Your task to perform on an android device: change alarm snooze length Image 0: 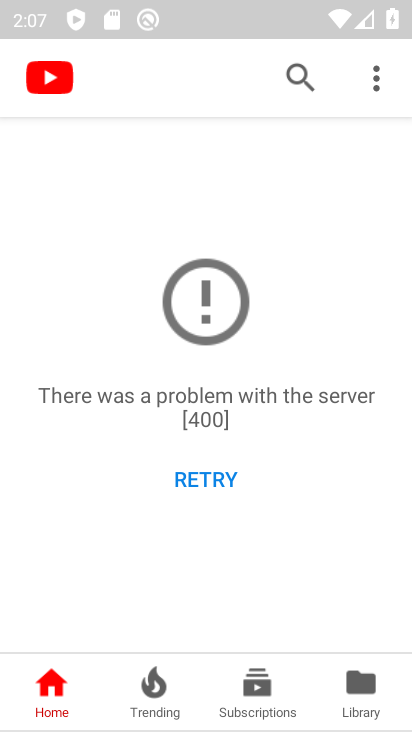
Step 0: press home button
Your task to perform on an android device: change alarm snooze length Image 1: 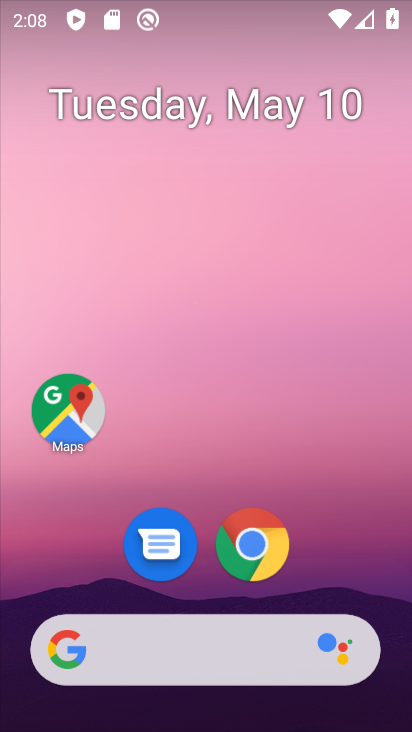
Step 1: drag from (249, 720) to (272, 202)
Your task to perform on an android device: change alarm snooze length Image 2: 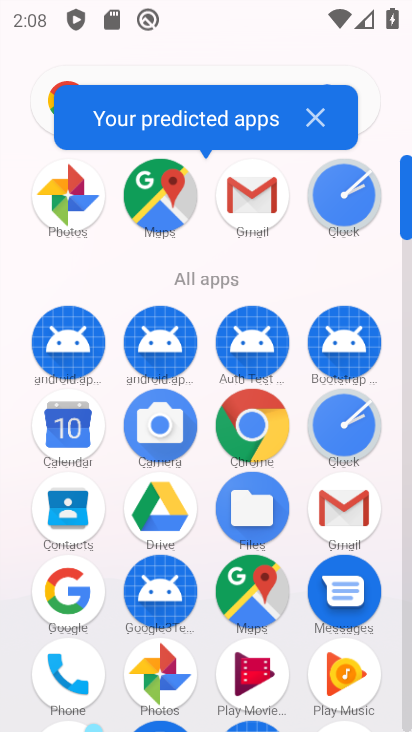
Step 2: click (338, 423)
Your task to perform on an android device: change alarm snooze length Image 3: 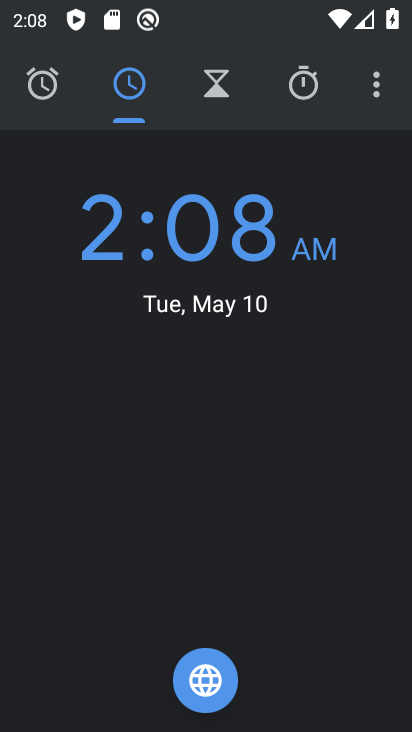
Step 3: click (378, 90)
Your task to perform on an android device: change alarm snooze length Image 4: 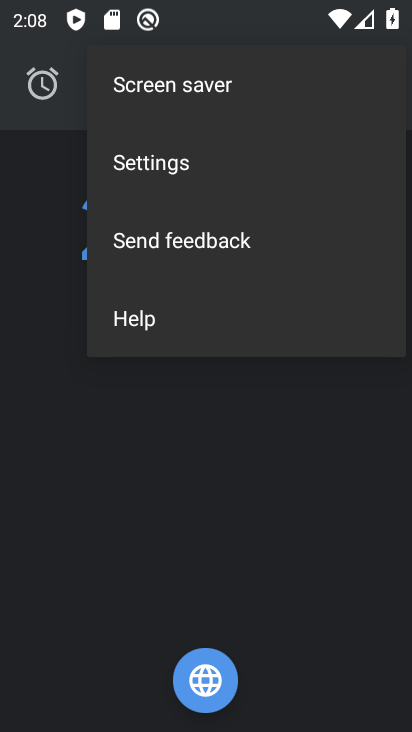
Step 4: click (161, 161)
Your task to perform on an android device: change alarm snooze length Image 5: 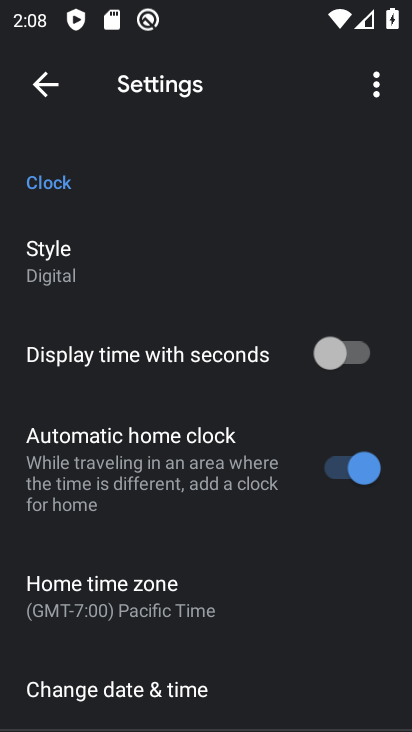
Step 5: drag from (158, 566) to (163, 272)
Your task to perform on an android device: change alarm snooze length Image 6: 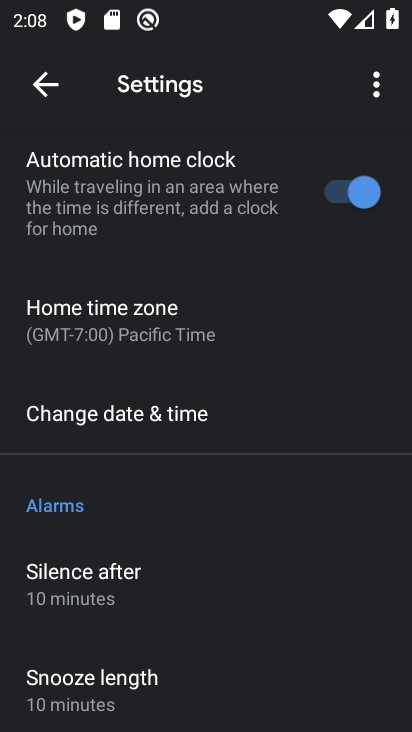
Step 6: drag from (172, 639) to (172, 394)
Your task to perform on an android device: change alarm snooze length Image 7: 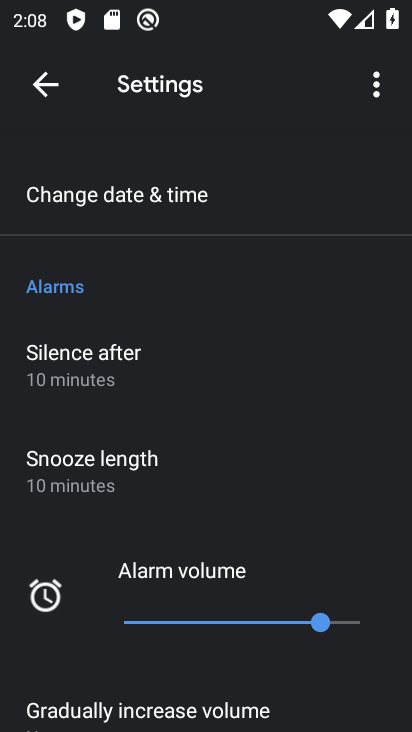
Step 7: click (96, 462)
Your task to perform on an android device: change alarm snooze length Image 8: 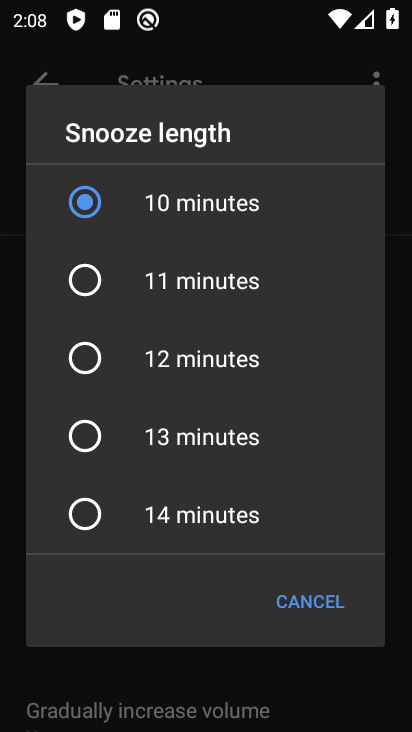
Step 8: click (87, 514)
Your task to perform on an android device: change alarm snooze length Image 9: 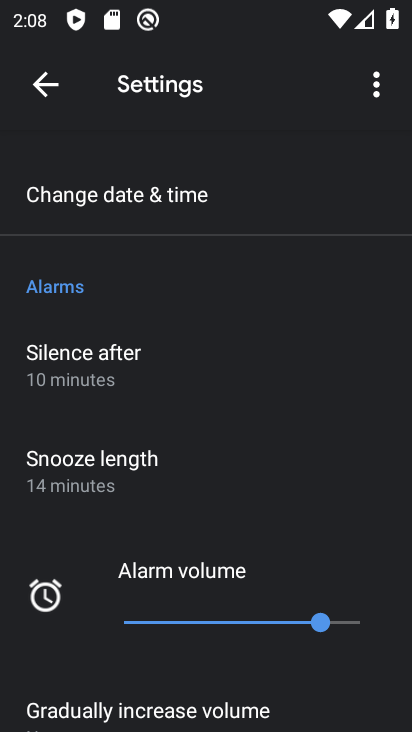
Step 9: task complete